Your task to perform on an android device: empty trash in the gmail app Image 0: 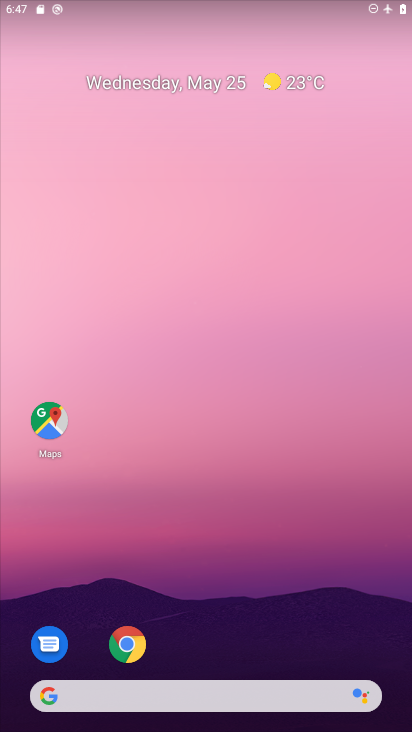
Step 0: drag from (311, 618) to (317, 44)
Your task to perform on an android device: empty trash in the gmail app Image 1: 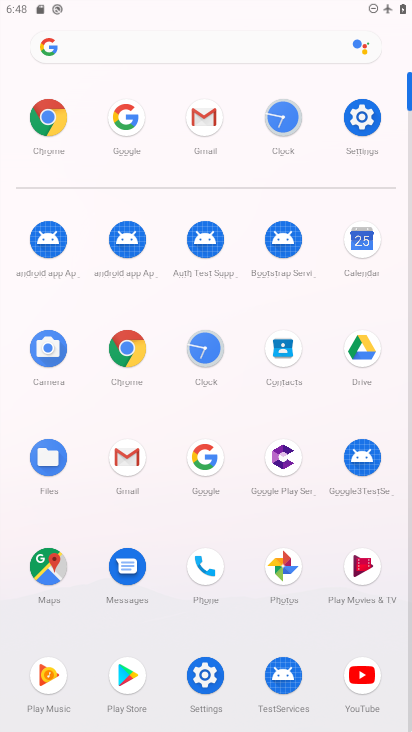
Step 1: click (127, 447)
Your task to perform on an android device: empty trash in the gmail app Image 2: 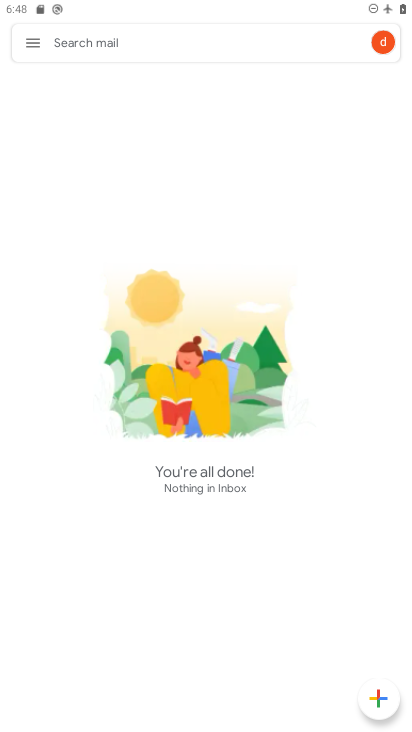
Step 2: click (128, 448)
Your task to perform on an android device: empty trash in the gmail app Image 3: 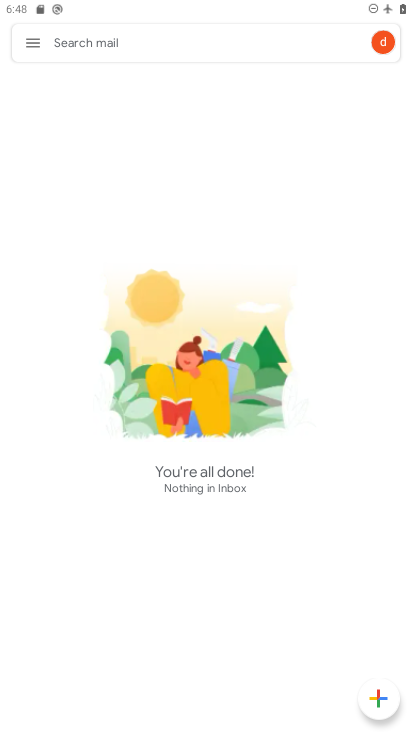
Step 3: click (35, 34)
Your task to perform on an android device: empty trash in the gmail app Image 4: 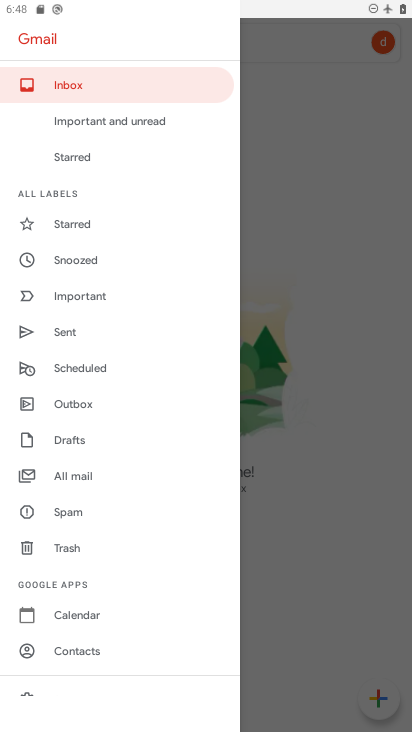
Step 4: click (87, 542)
Your task to perform on an android device: empty trash in the gmail app Image 5: 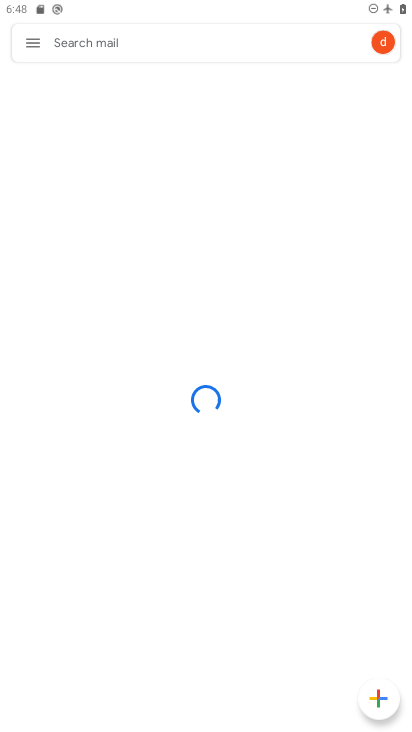
Step 5: task complete